Your task to perform on an android device: set the stopwatch Image 0: 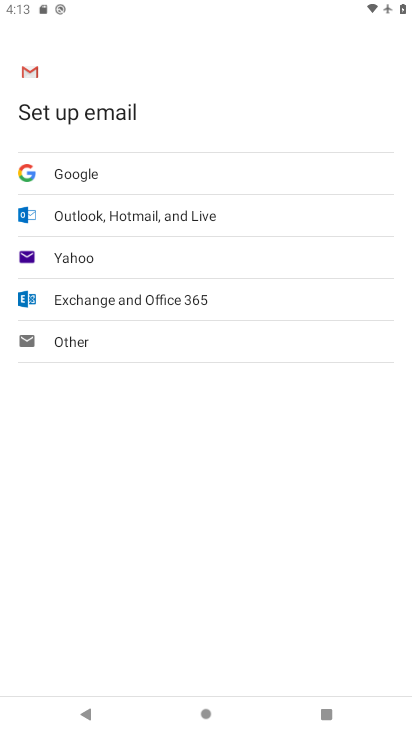
Step 0: press home button
Your task to perform on an android device: set the stopwatch Image 1: 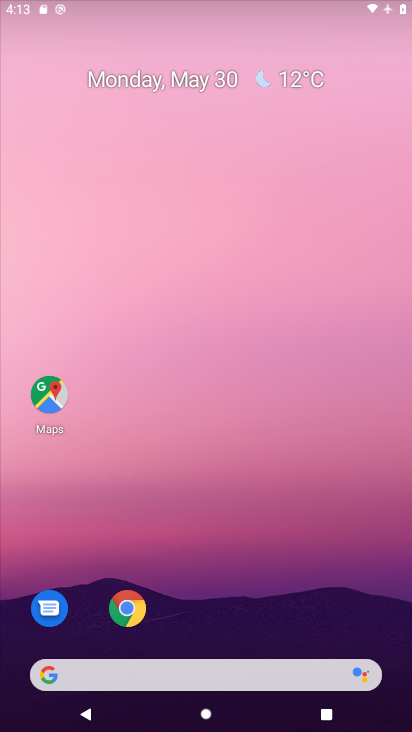
Step 1: drag from (292, 485) to (198, 50)
Your task to perform on an android device: set the stopwatch Image 2: 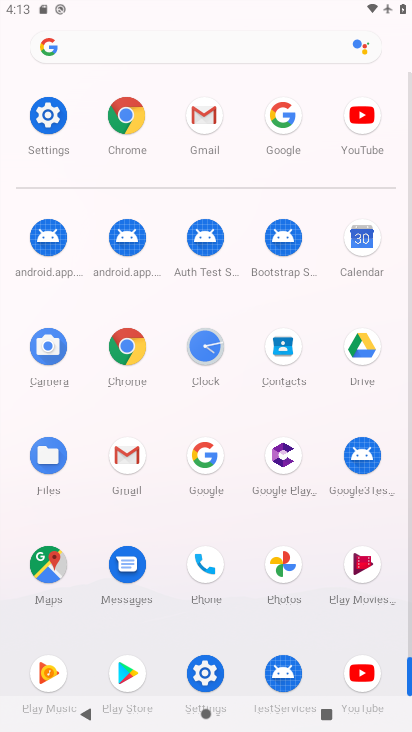
Step 2: click (201, 328)
Your task to perform on an android device: set the stopwatch Image 3: 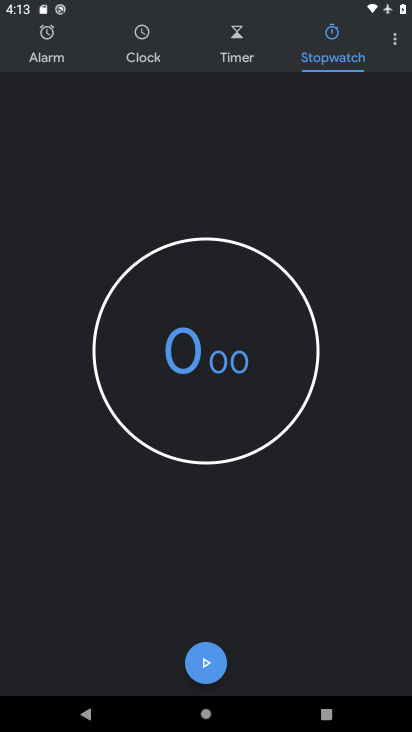
Step 3: click (203, 666)
Your task to perform on an android device: set the stopwatch Image 4: 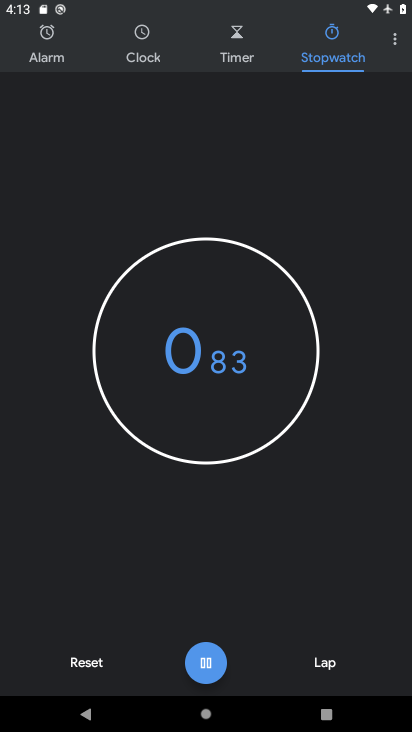
Step 4: task complete